Your task to perform on an android device: Open Youtube and go to the subscriptions tab Image 0: 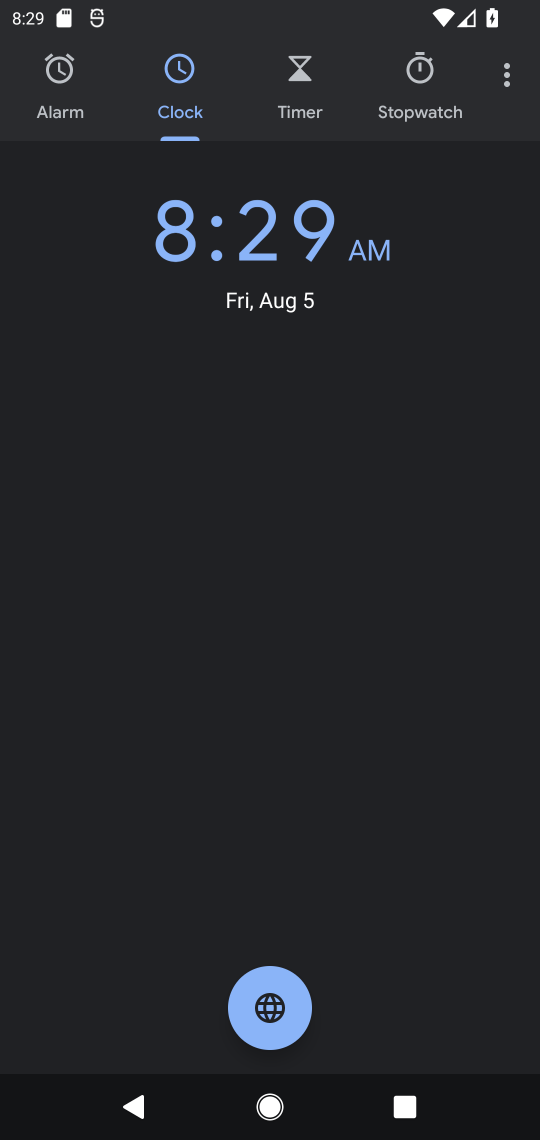
Step 0: press home button
Your task to perform on an android device: Open Youtube and go to the subscriptions tab Image 1: 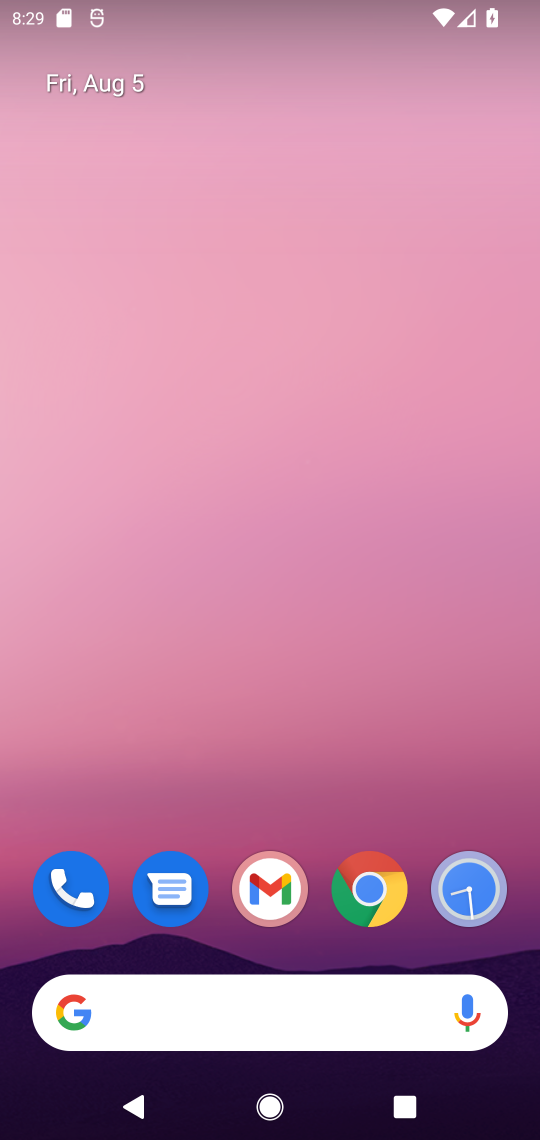
Step 1: drag from (254, 973) to (279, 242)
Your task to perform on an android device: Open Youtube and go to the subscriptions tab Image 2: 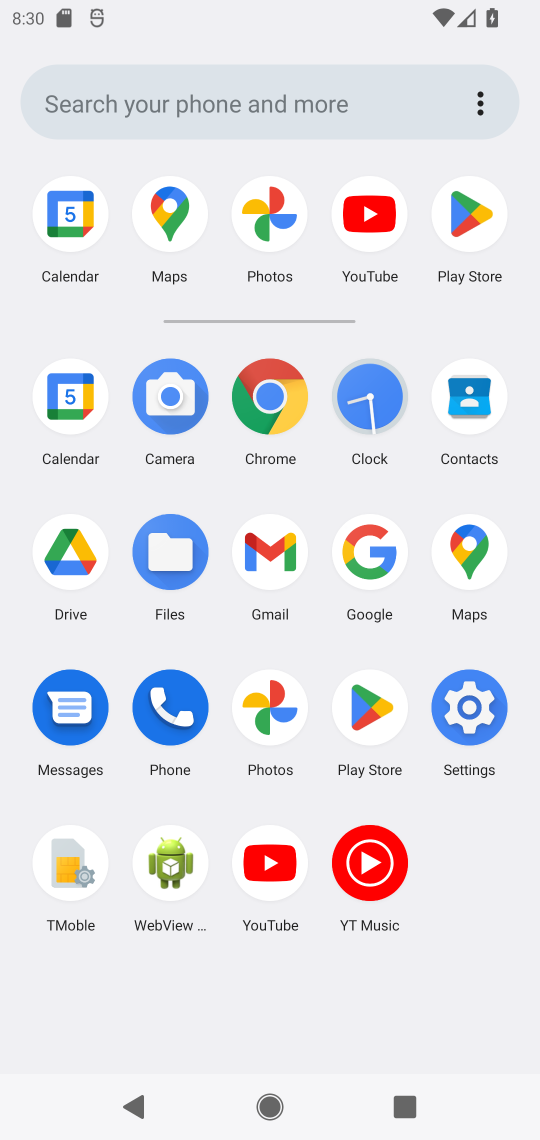
Step 2: click (259, 847)
Your task to perform on an android device: Open Youtube and go to the subscriptions tab Image 3: 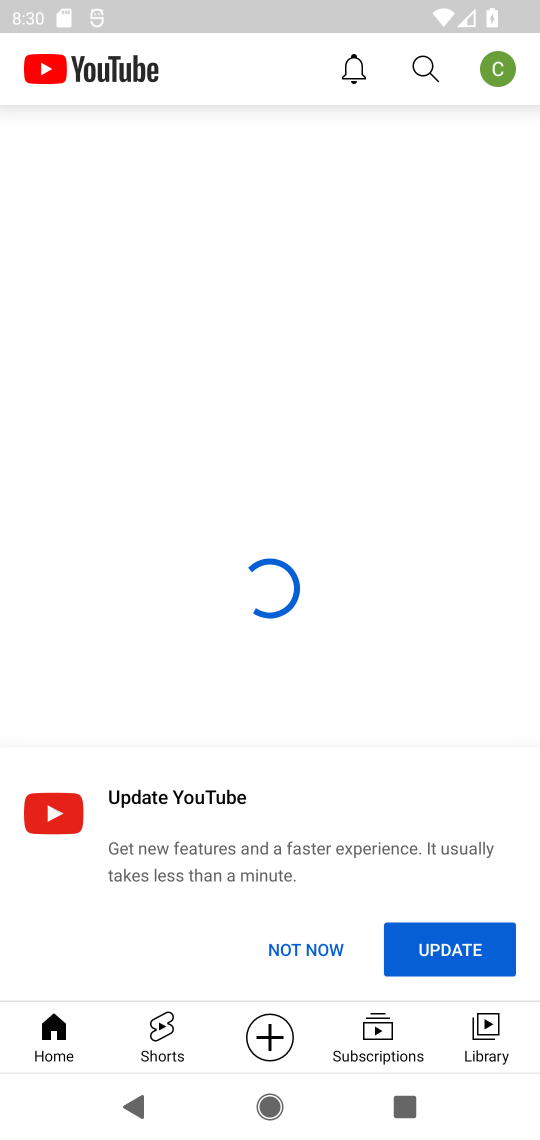
Step 3: click (391, 1056)
Your task to perform on an android device: Open Youtube and go to the subscriptions tab Image 4: 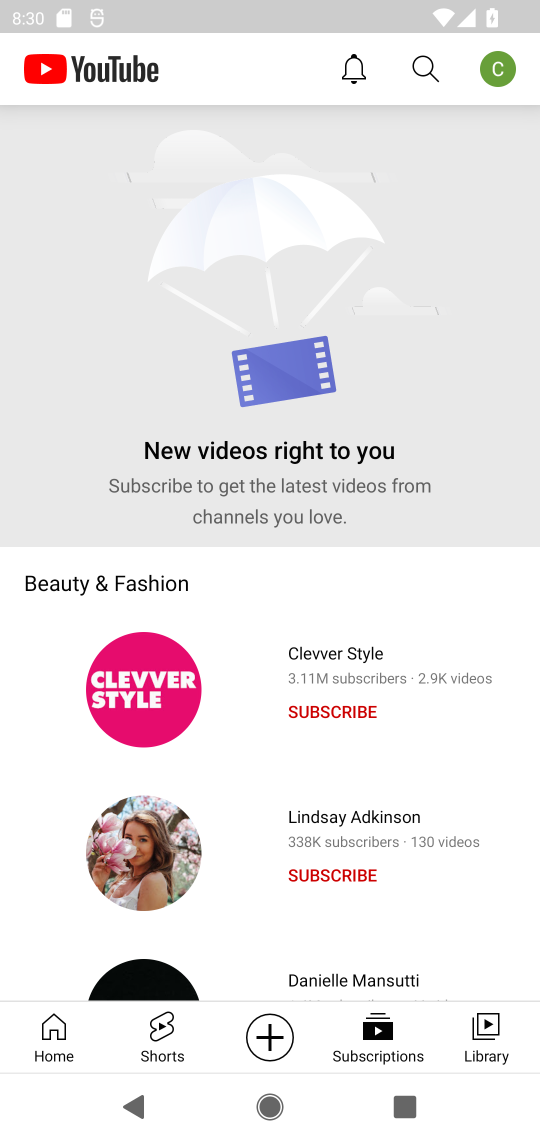
Step 4: task complete